Your task to perform on an android device: What's the weather going to be this weekend? Image 0: 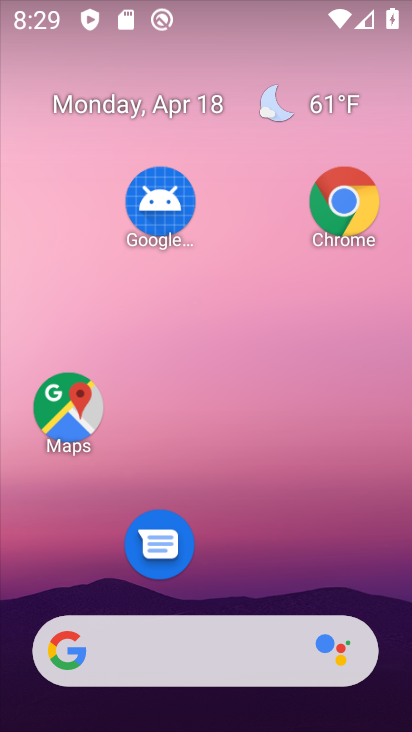
Step 0: drag from (216, 599) to (249, 15)
Your task to perform on an android device: What's the weather going to be this weekend? Image 1: 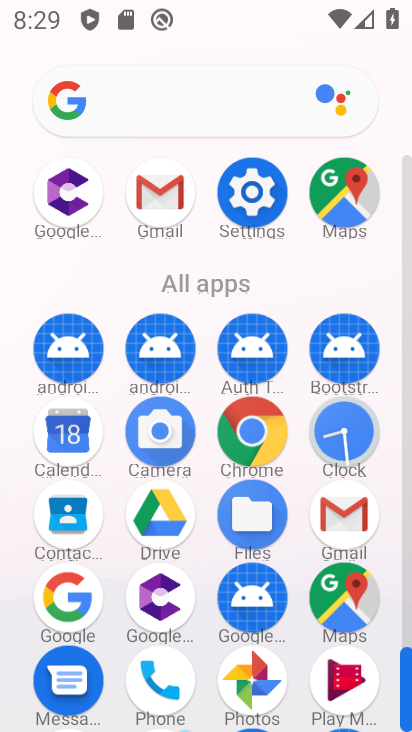
Step 1: click (66, 588)
Your task to perform on an android device: What's the weather going to be this weekend? Image 2: 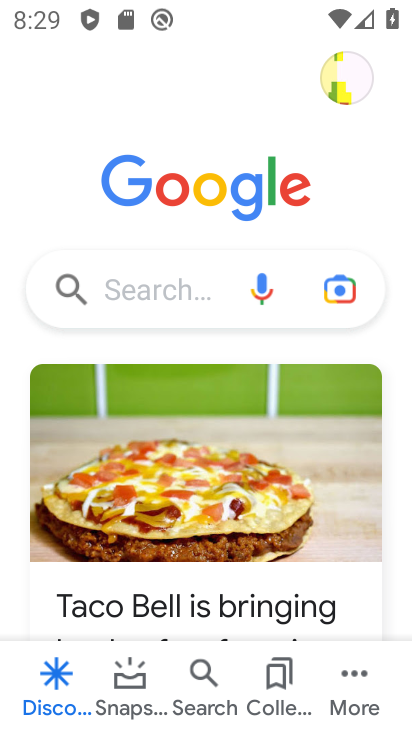
Step 2: click (180, 274)
Your task to perform on an android device: What's the weather going to be this weekend? Image 3: 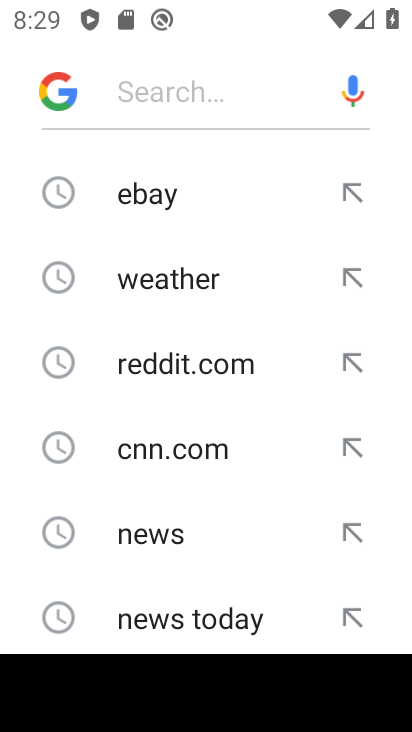
Step 3: click (180, 279)
Your task to perform on an android device: What's the weather going to be this weekend? Image 4: 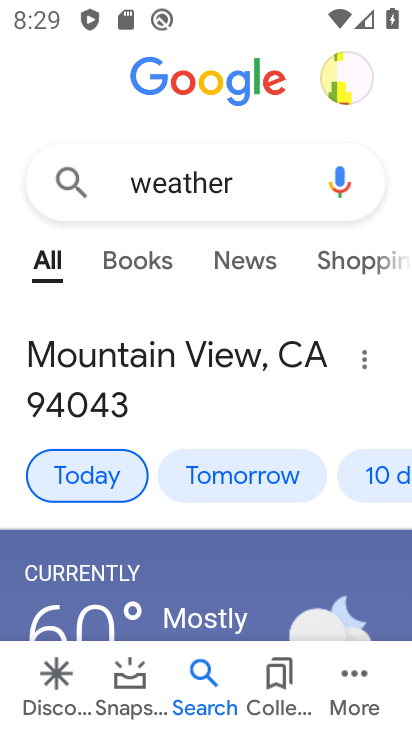
Step 4: click (374, 478)
Your task to perform on an android device: What's the weather going to be this weekend? Image 5: 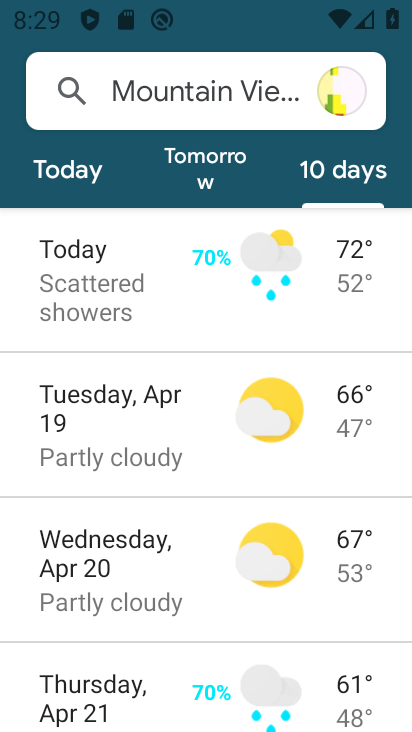
Step 5: task complete